Your task to perform on an android device: turn off picture-in-picture Image 0: 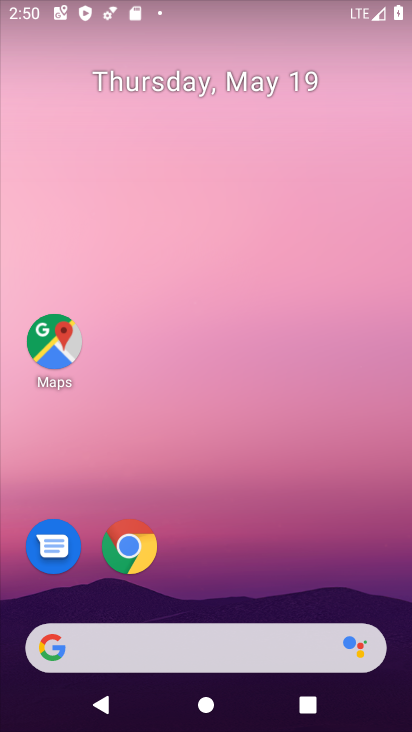
Step 0: press home button
Your task to perform on an android device: turn off picture-in-picture Image 1: 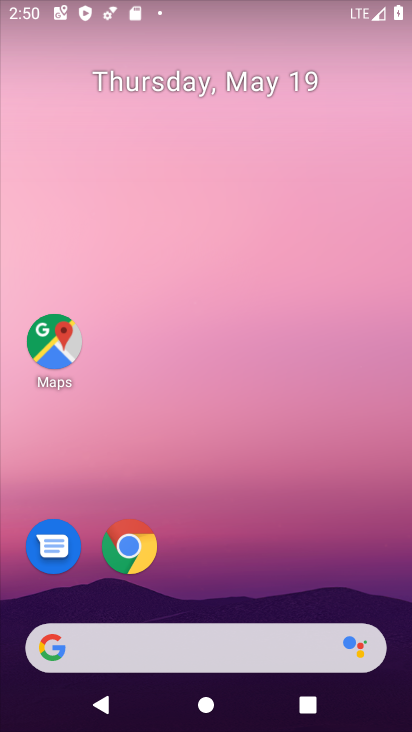
Step 1: click (130, 541)
Your task to perform on an android device: turn off picture-in-picture Image 2: 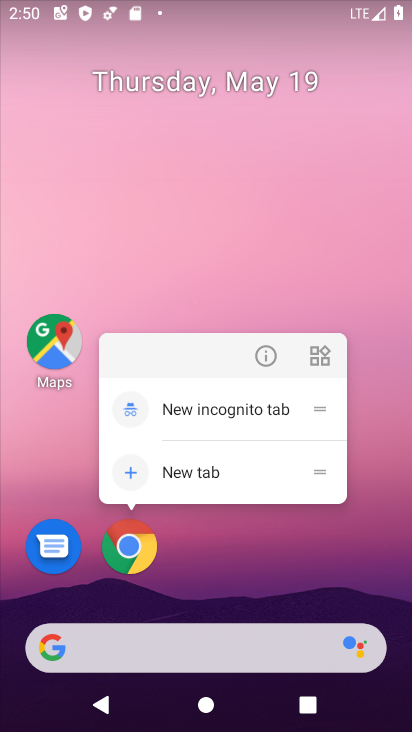
Step 2: click (289, 359)
Your task to perform on an android device: turn off picture-in-picture Image 3: 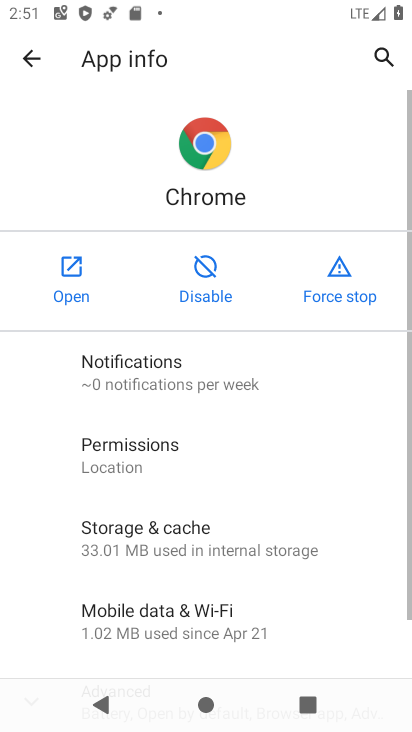
Step 3: drag from (224, 665) to (342, 369)
Your task to perform on an android device: turn off picture-in-picture Image 4: 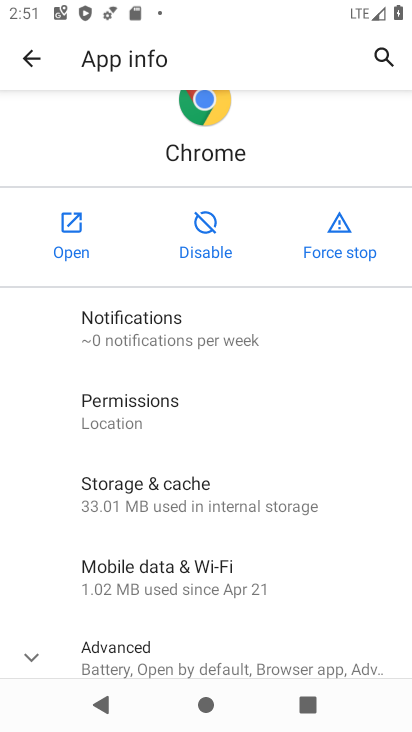
Step 4: drag from (209, 655) to (363, 86)
Your task to perform on an android device: turn off picture-in-picture Image 5: 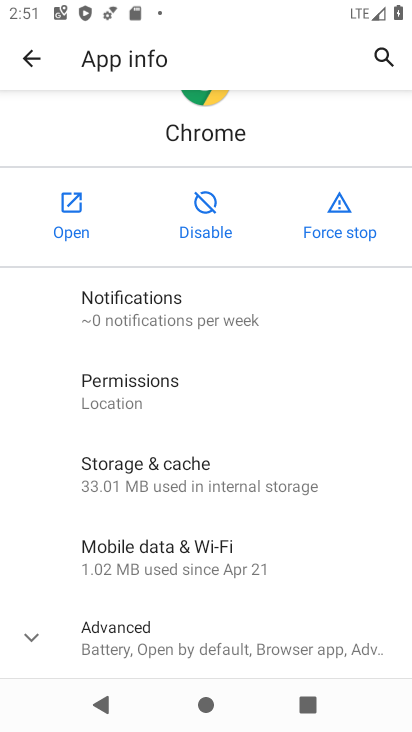
Step 5: click (147, 641)
Your task to perform on an android device: turn off picture-in-picture Image 6: 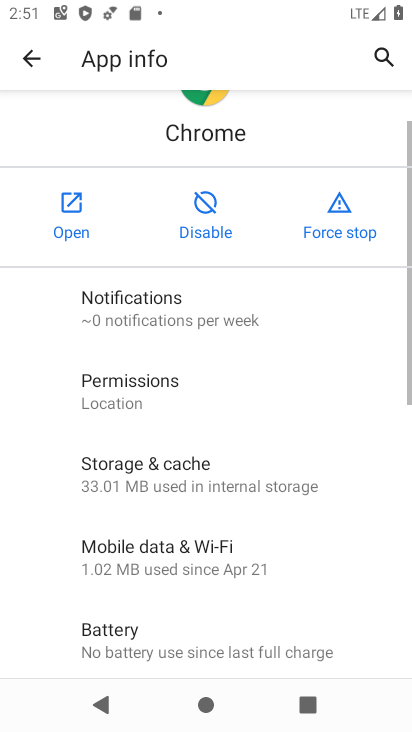
Step 6: drag from (153, 647) to (297, 92)
Your task to perform on an android device: turn off picture-in-picture Image 7: 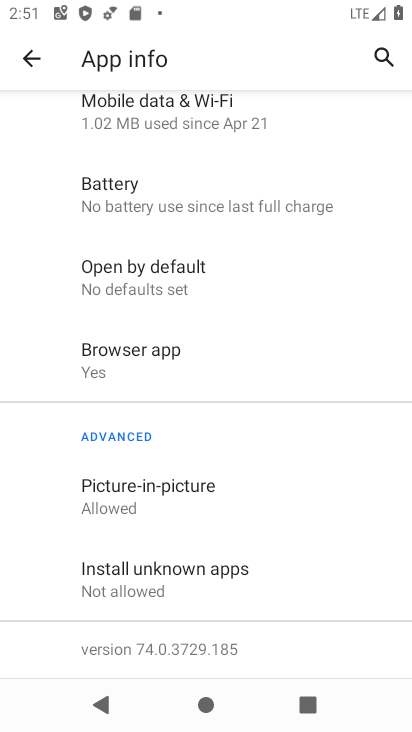
Step 7: click (153, 490)
Your task to perform on an android device: turn off picture-in-picture Image 8: 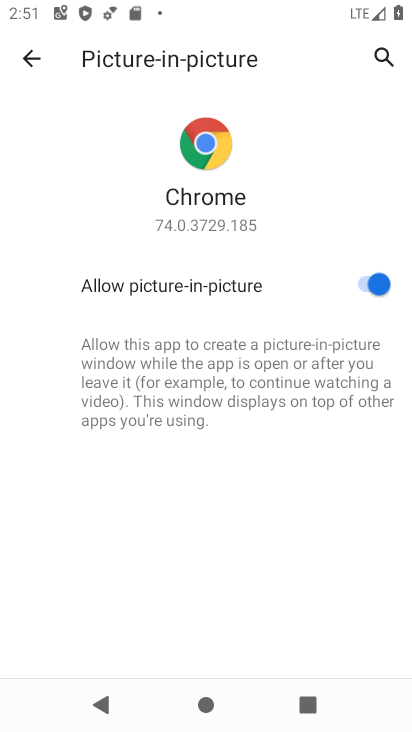
Step 8: click (370, 289)
Your task to perform on an android device: turn off picture-in-picture Image 9: 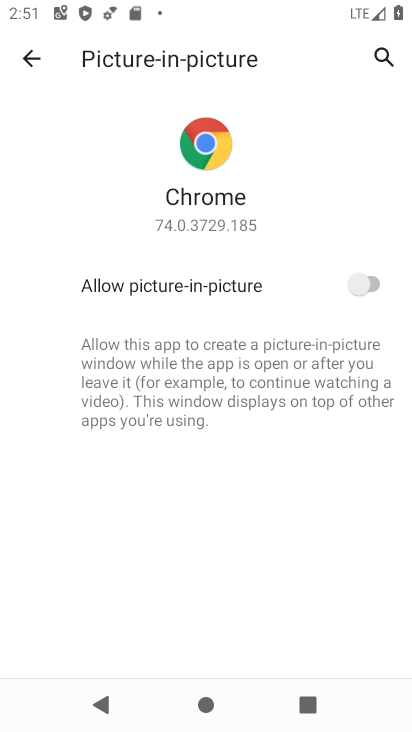
Step 9: task complete